Your task to perform on an android device: Open ESPN.com Image 0: 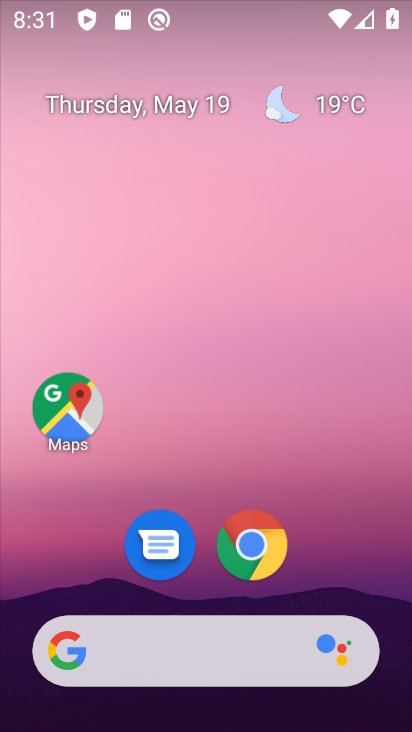
Step 0: click (250, 544)
Your task to perform on an android device: Open ESPN.com Image 1: 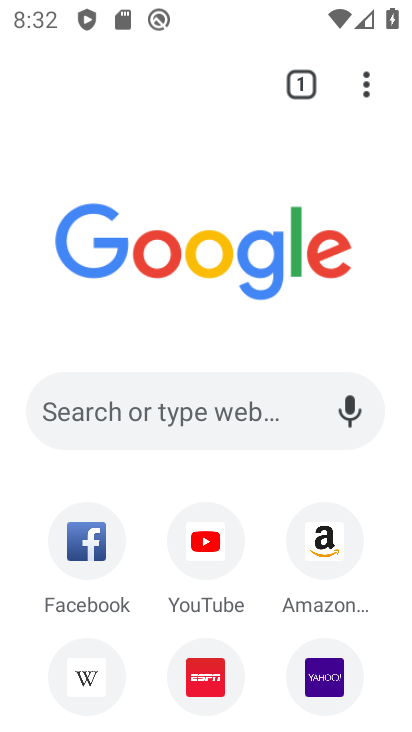
Step 1: click (223, 663)
Your task to perform on an android device: Open ESPN.com Image 2: 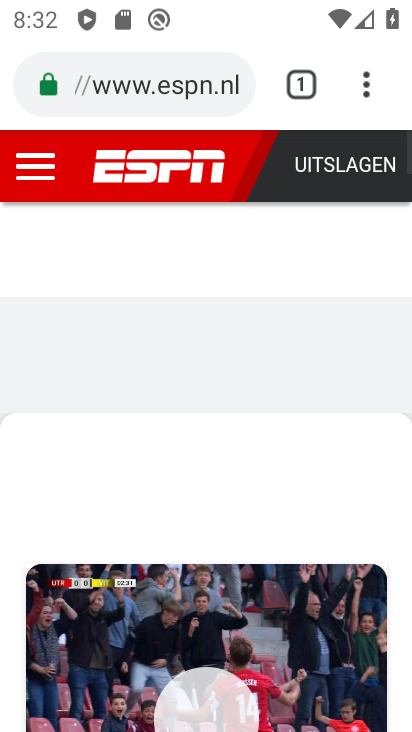
Step 2: task complete